Your task to perform on an android device: turn on priority inbox in the gmail app Image 0: 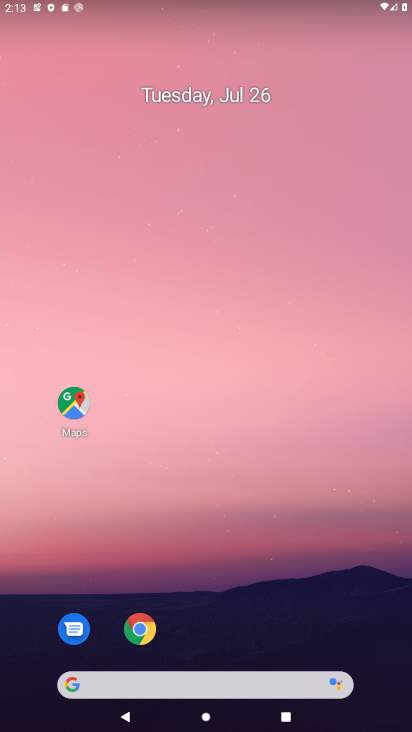
Step 0: drag from (200, 618) to (208, 185)
Your task to perform on an android device: turn on priority inbox in the gmail app Image 1: 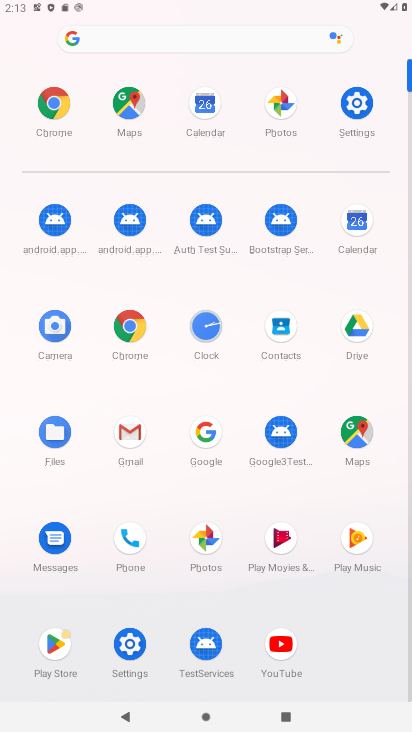
Step 1: click (140, 446)
Your task to perform on an android device: turn on priority inbox in the gmail app Image 2: 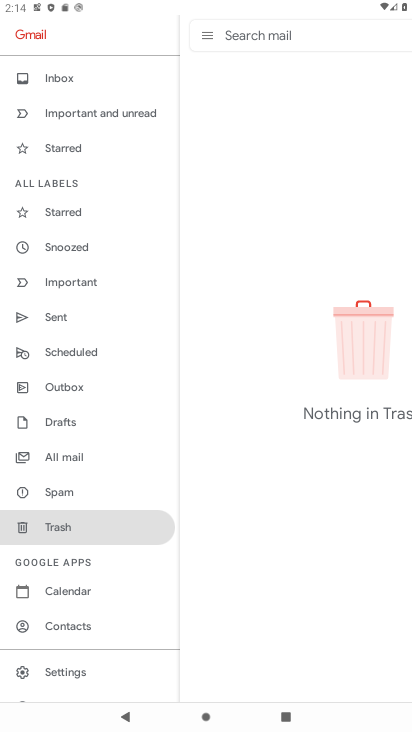
Step 2: click (77, 671)
Your task to perform on an android device: turn on priority inbox in the gmail app Image 3: 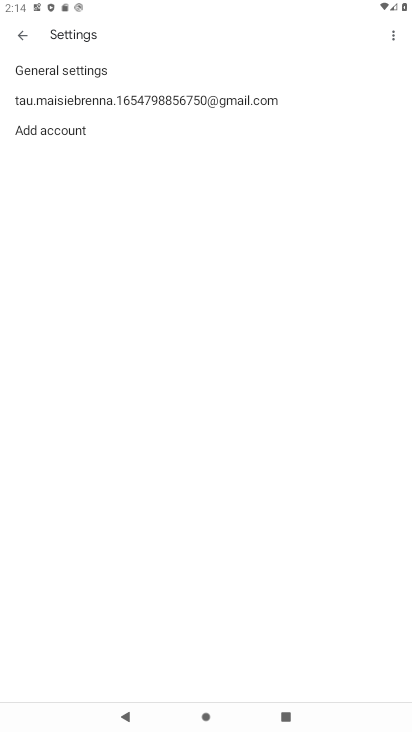
Step 3: click (127, 105)
Your task to perform on an android device: turn on priority inbox in the gmail app Image 4: 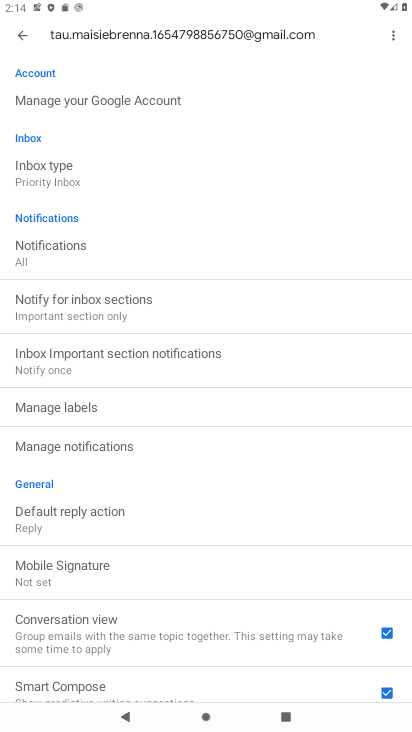
Step 4: click (88, 173)
Your task to perform on an android device: turn on priority inbox in the gmail app Image 5: 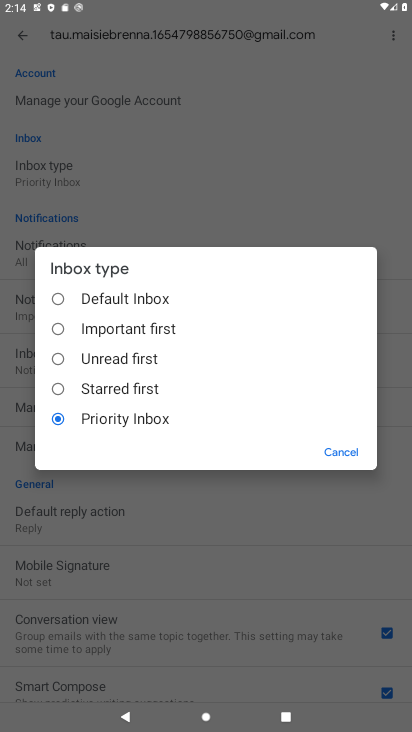
Step 5: task complete